Your task to perform on an android device: open chrome privacy settings Image 0: 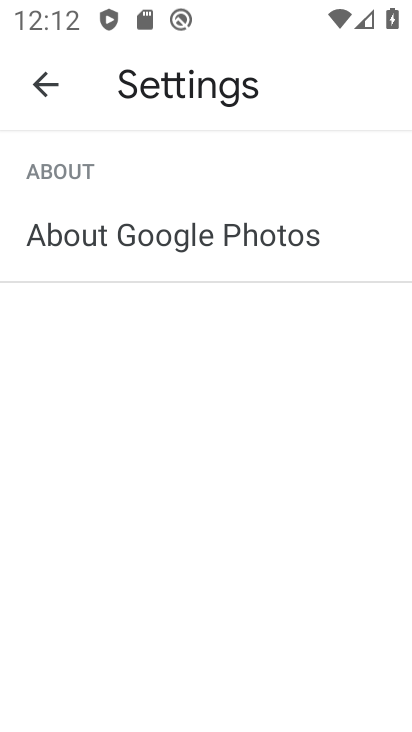
Step 0: press home button
Your task to perform on an android device: open chrome privacy settings Image 1: 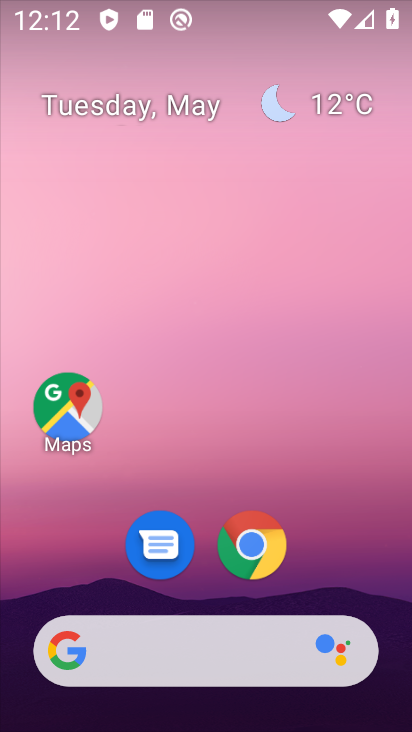
Step 1: click (249, 549)
Your task to perform on an android device: open chrome privacy settings Image 2: 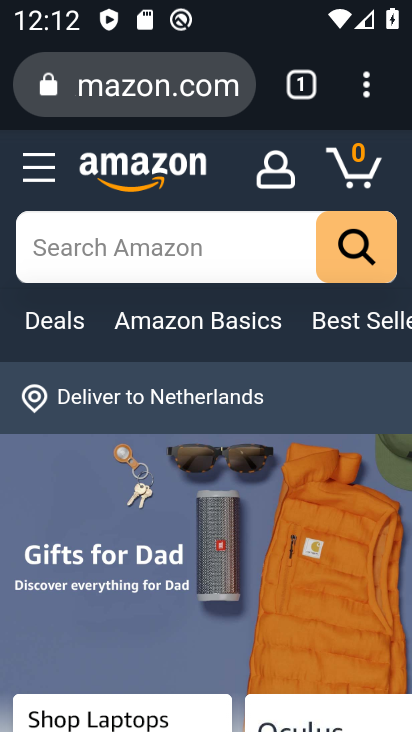
Step 2: click (361, 82)
Your task to perform on an android device: open chrome privacy settings Image 3: 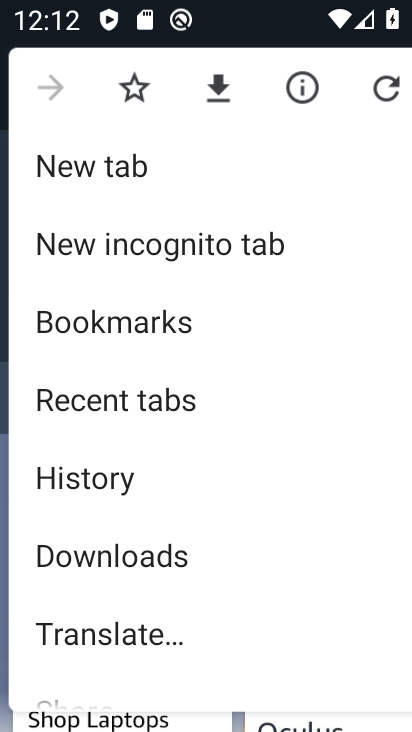
Step 3: drag from (164, 559) to (145, 190)
Your task to perform on an android device: open chrome privacy settings Image 4: 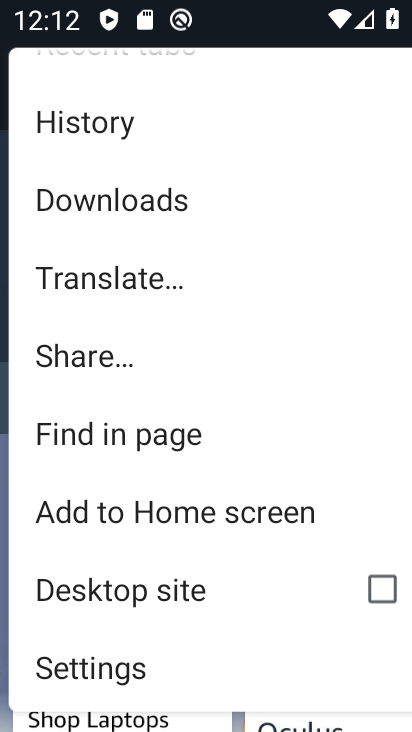
Step 4: click (147, 658)
Your task to perform on an android device: open chrome privacy settings Image 5: 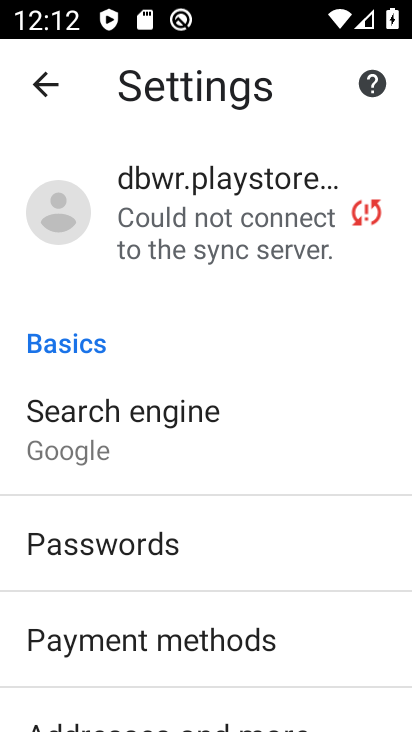
Step 5: drag from (173, 661) to (175, 273)
Your task to perform on an android device: open chrome privacy settings Image 6: 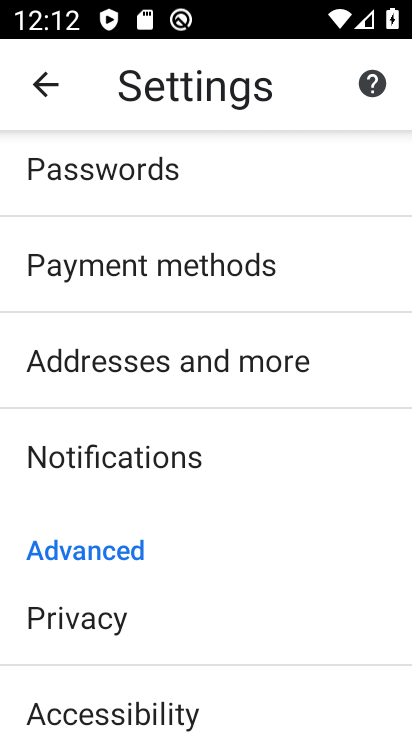
Step 6: click (129, 616)
Your task to perform on an android device: open chrome privacy settings Image 7: 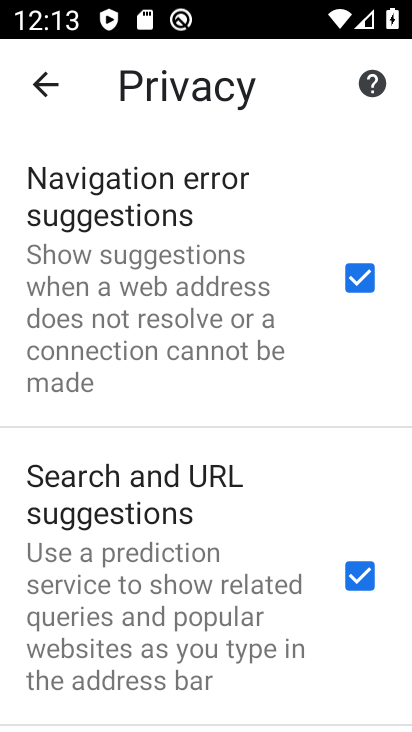
Step 7: task complete